Your task to perform on an android device: When is my next appointment? Image 0: 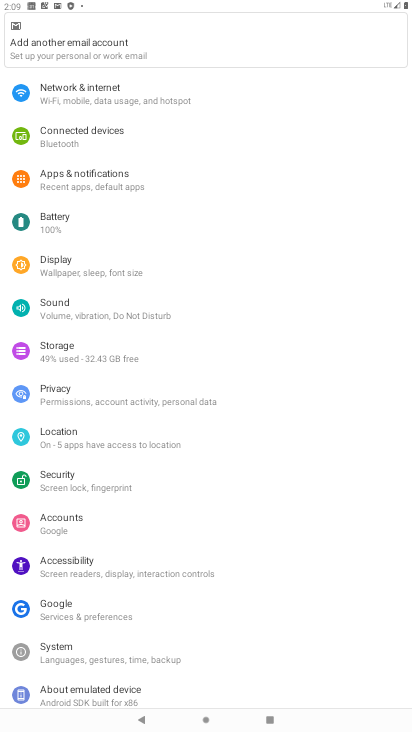
Step 0: press home button
Your task to perform on an android device: When is my next appointment? Image 1: 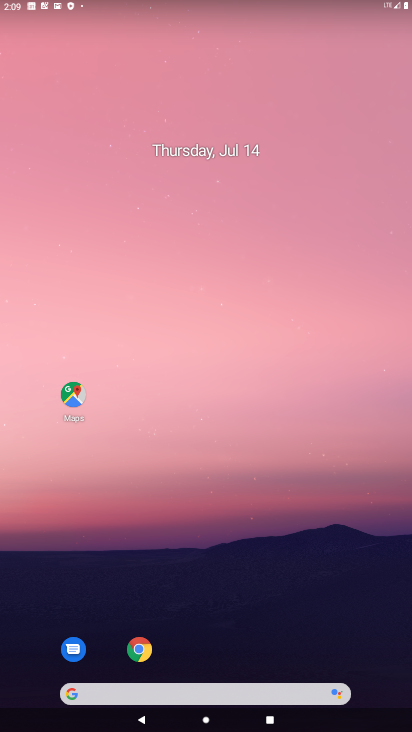
Step 1: drag from (384, 644) to (326, 86)
Your task to perform on an android device: When is my next appointment? Image 2: 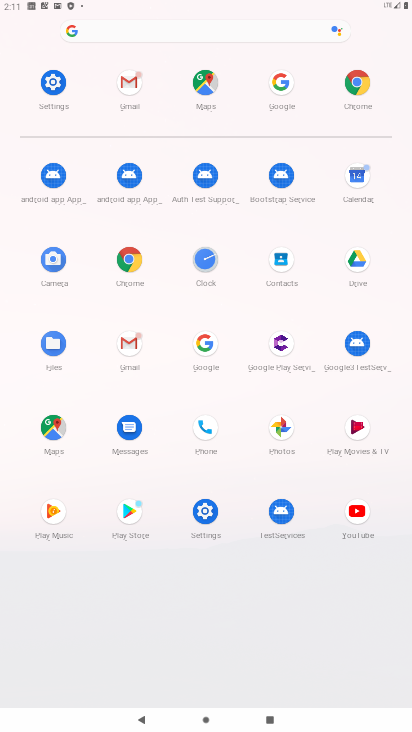
Step 2: click (354, 173)
Your task to perform on an android device: When is my next appointment? Image 3: 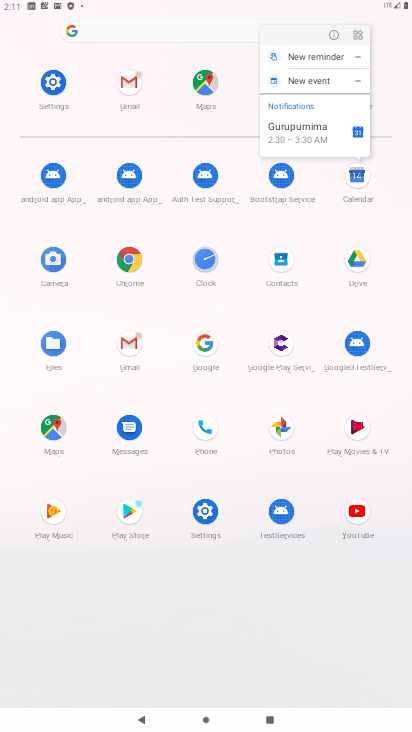
Step 3: click (354, 173)
Your task to perform on an android device: When is my next appointment? Image 4: 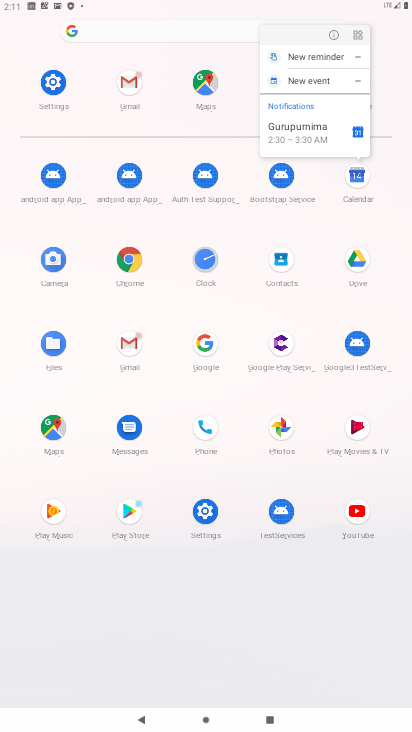
Step 4: click (354, 173)
Your task to perform on an android device: When is my next appointment? Image 5: 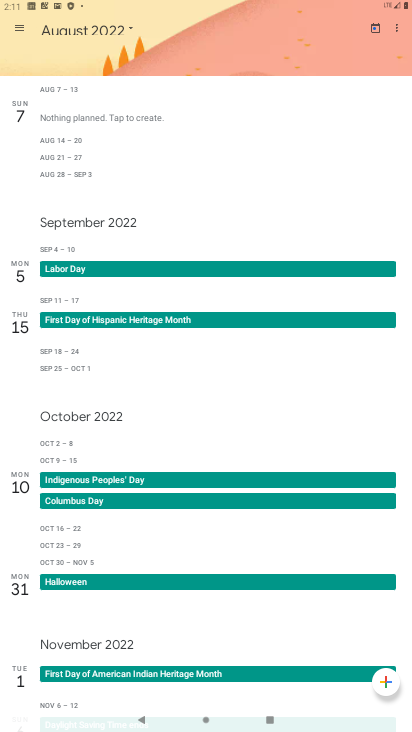
Step 5: task complete